Your task to perform on an android device: Clear the cart on target. Search for alienware aurora on target, select the first entry, and add it to the cart. Image 0: 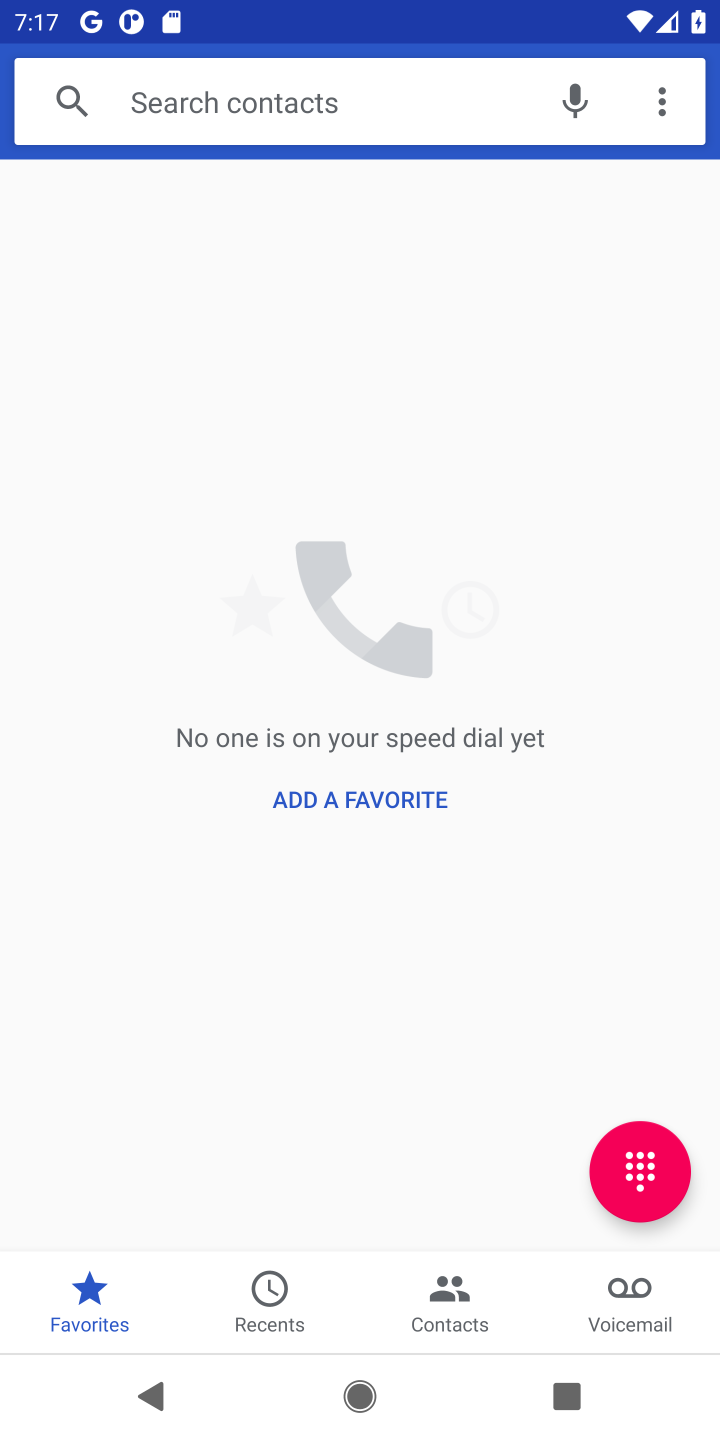
Step 0: press home button
Your task to perform on an android device: Clear the cart on target. Search for alienware aurora on target, select the first entry, and add it to the cart. Image 1: 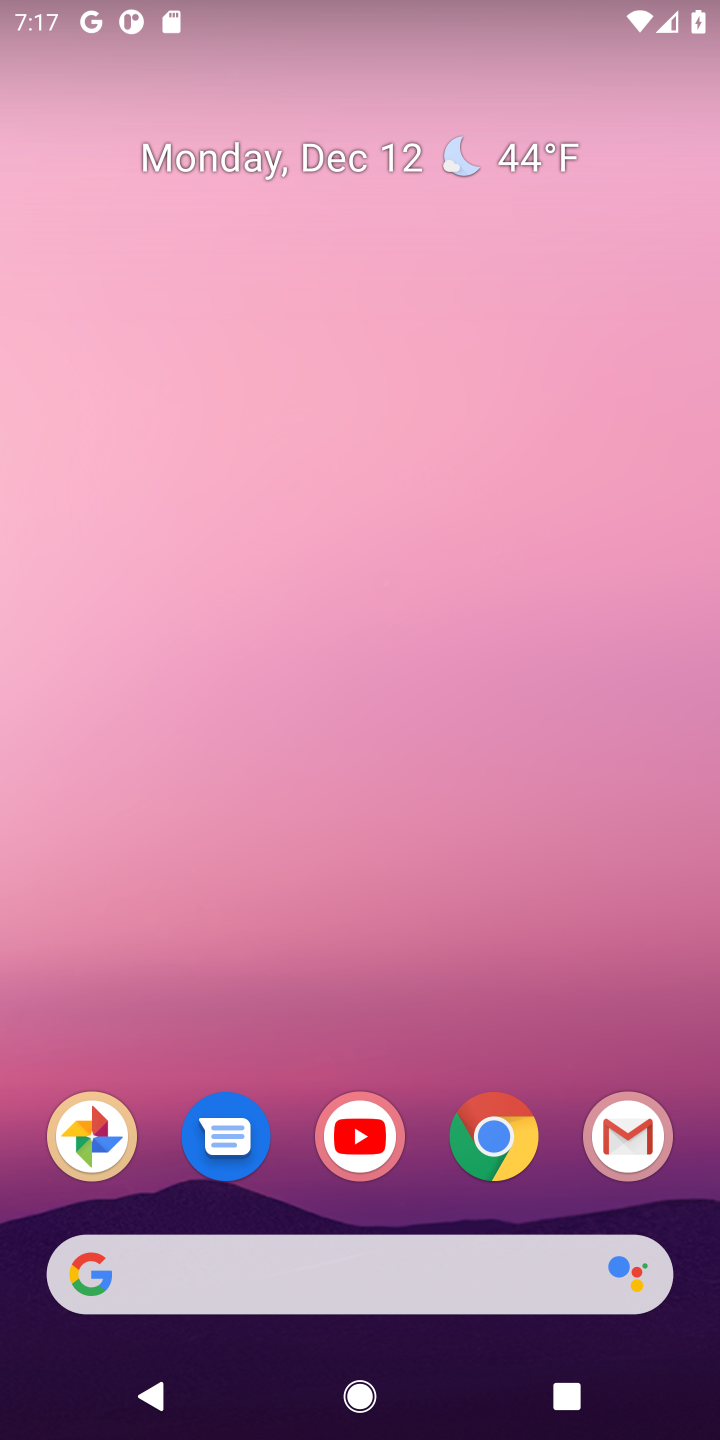
Step 1: click (499, 1140)
Your task to perform on an android device: Clear the cart on target. Search for alienware aurora on target, select the first entry, and add it to the cart. Image 2: 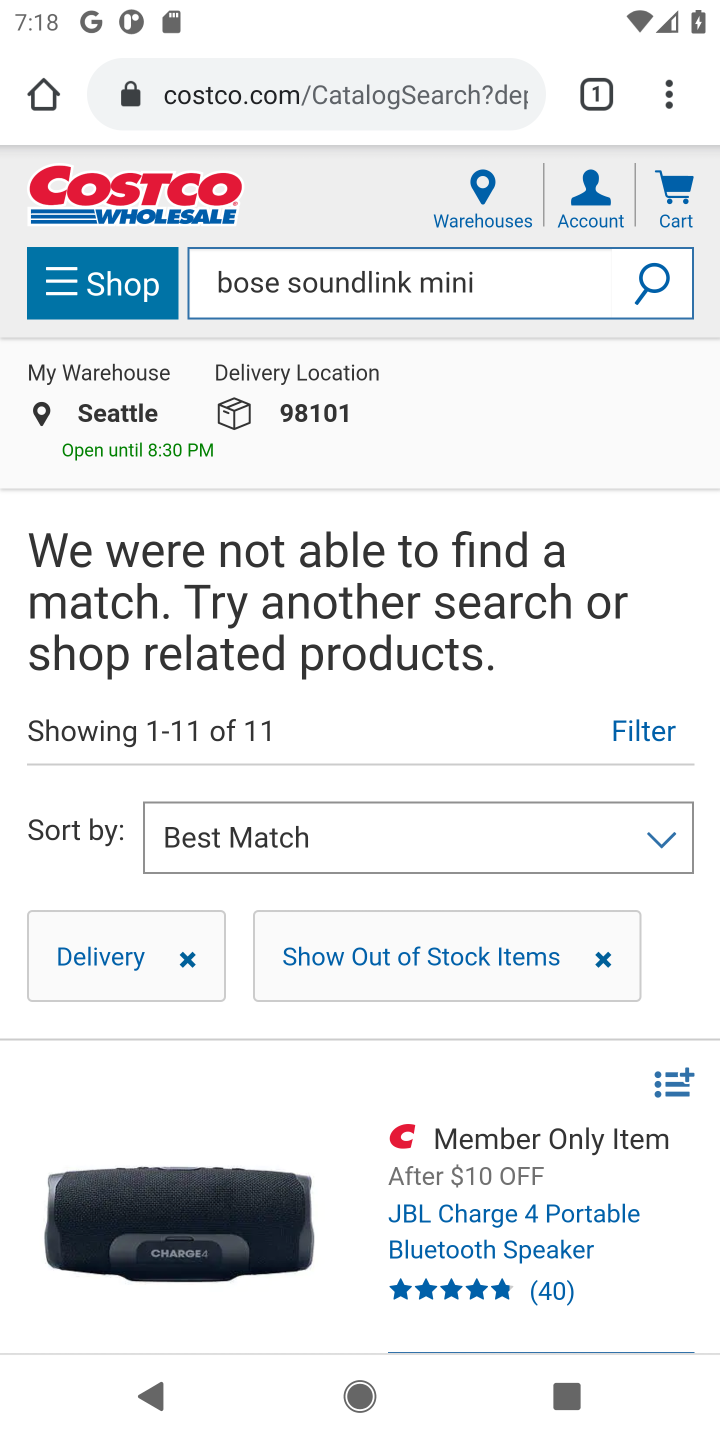
Step 2: click (316, 93)
Your task to perform on an android device: Clear the cart on target. Search for alienware aurora on target, select the first entry, and add it to the cart. Image 3: 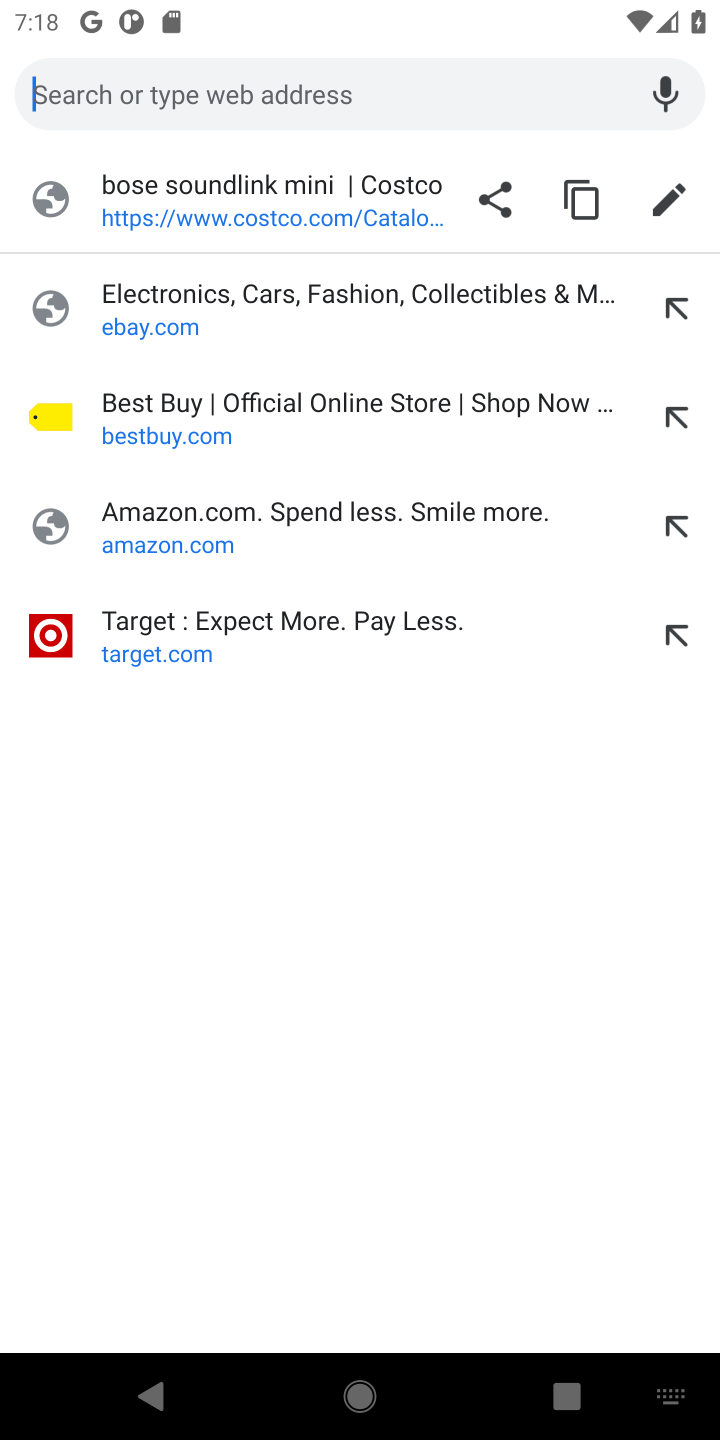
Step 3: click (152, 646)
Your task to perform on an android device: Clear the cart on target. Search for alienware aurora on target, select the first entry, and add it to the cart. Image 4: 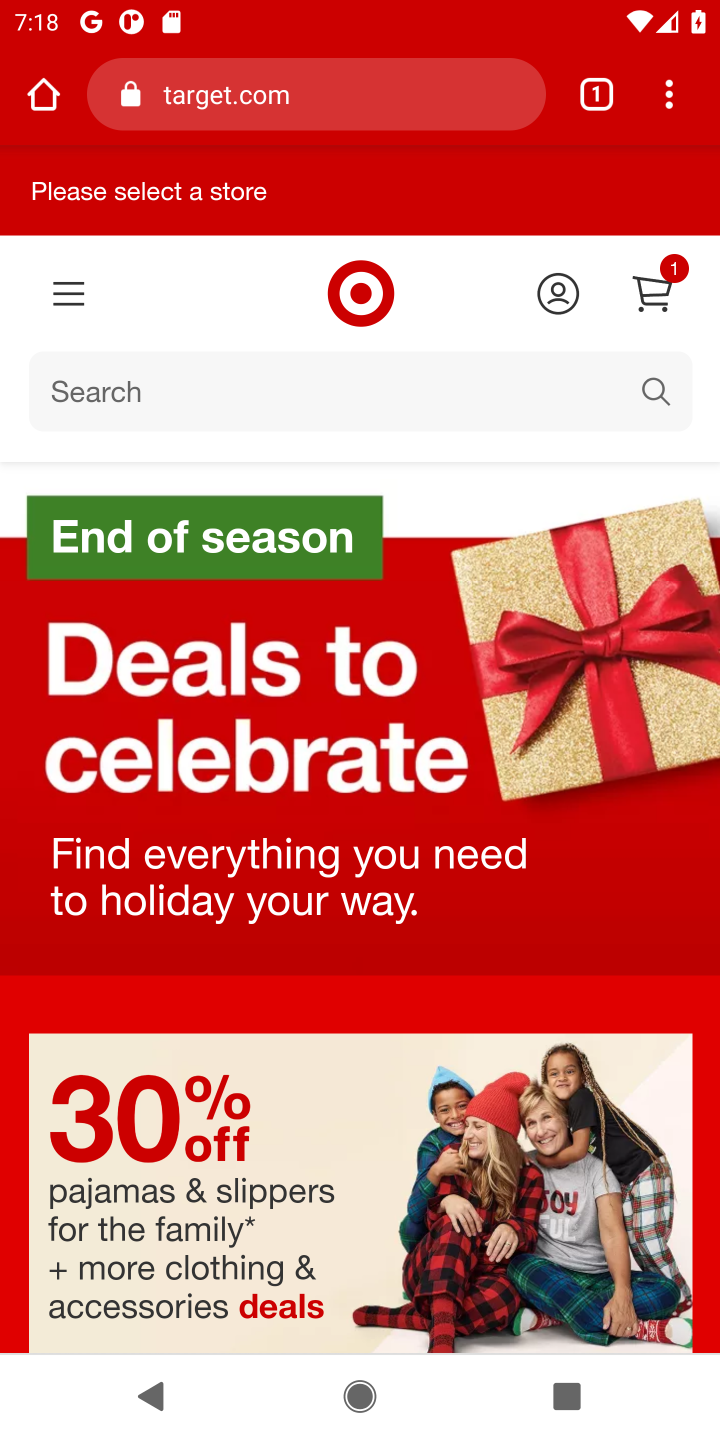
Step 4: click (642, 295)
Your task to perform on an android device: Clear the cart on target. Search for alienware aurora on target, select the first entry, and add it to the cart. Image 5: 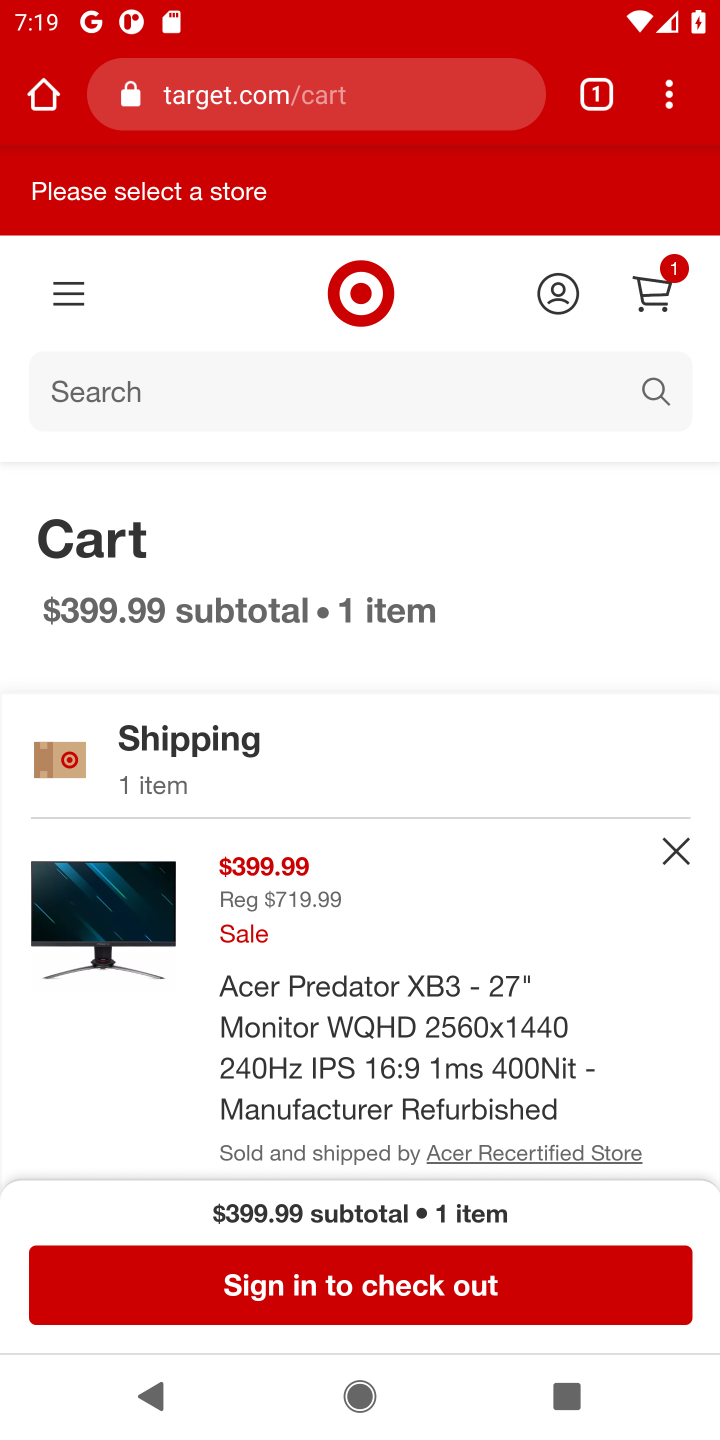
Step 5: click (671, 857)
Your task to perform on an android device: Clear the cart on target. Search for alienware aurora on target, select the first entry, and add it to the cart. Image 6: 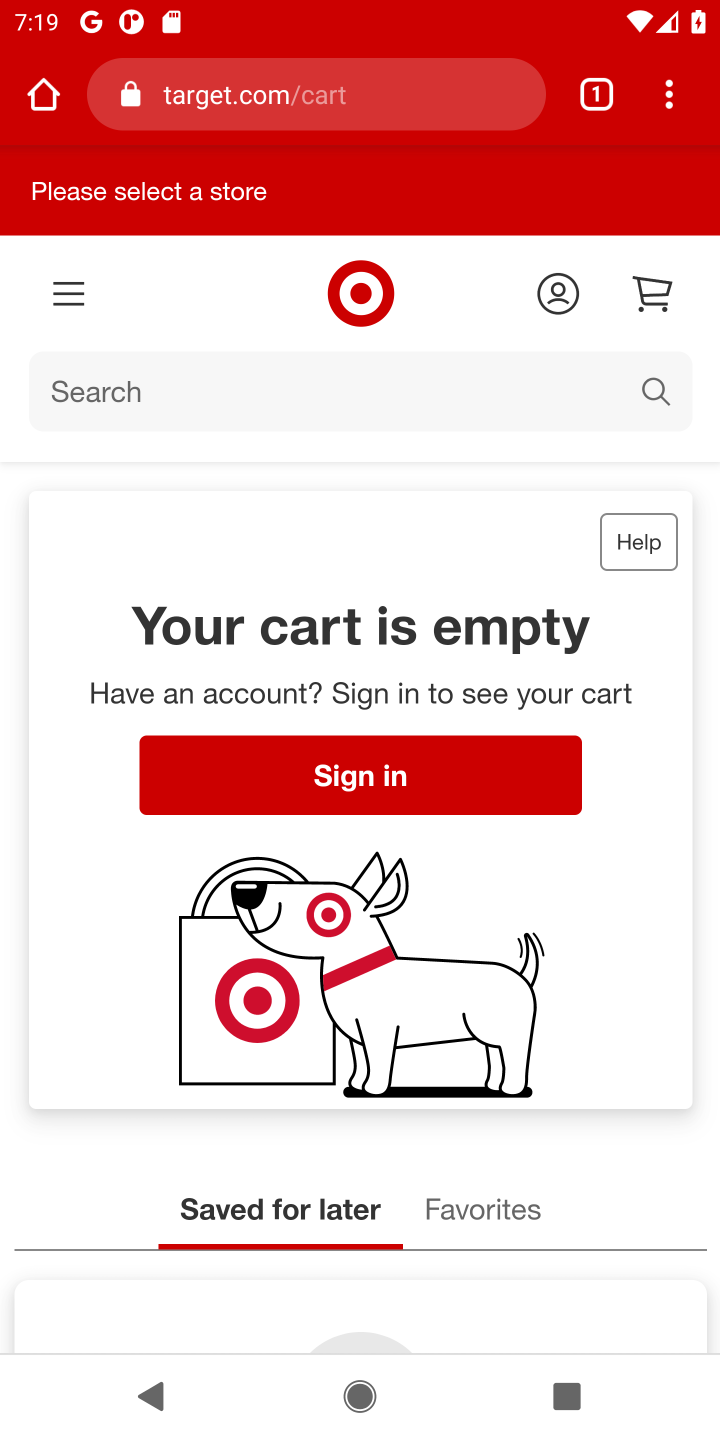
Step 6: click (123, 397)
Your task to perform on an android device: Clear the cart on target. Search for alienware aurora on target, select the first entry, and add it to the cart. Image 7: 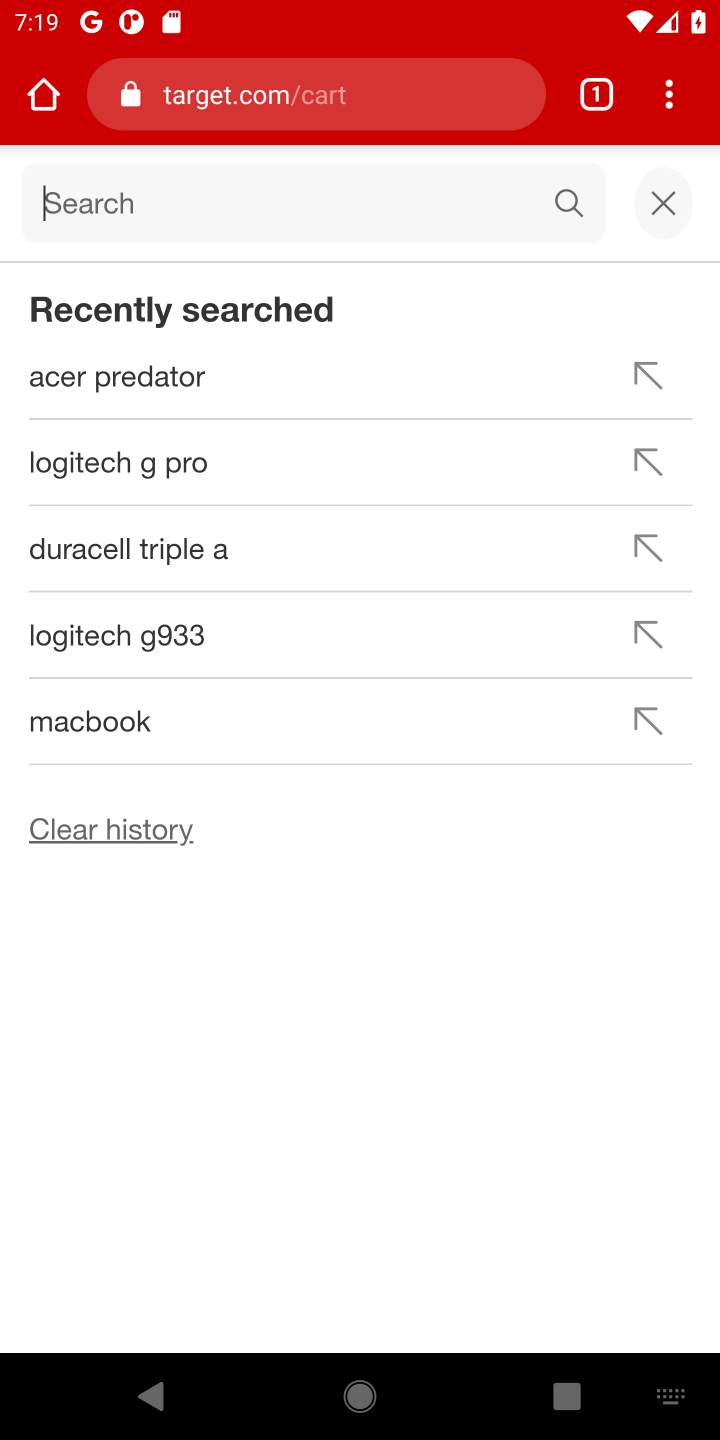
Step 7: type "alienware aurora"
Your task to perform on an android device: Clear the cart on target. Search for alienware aurora on target, select the first entry, and add it to the cart. Image 8: 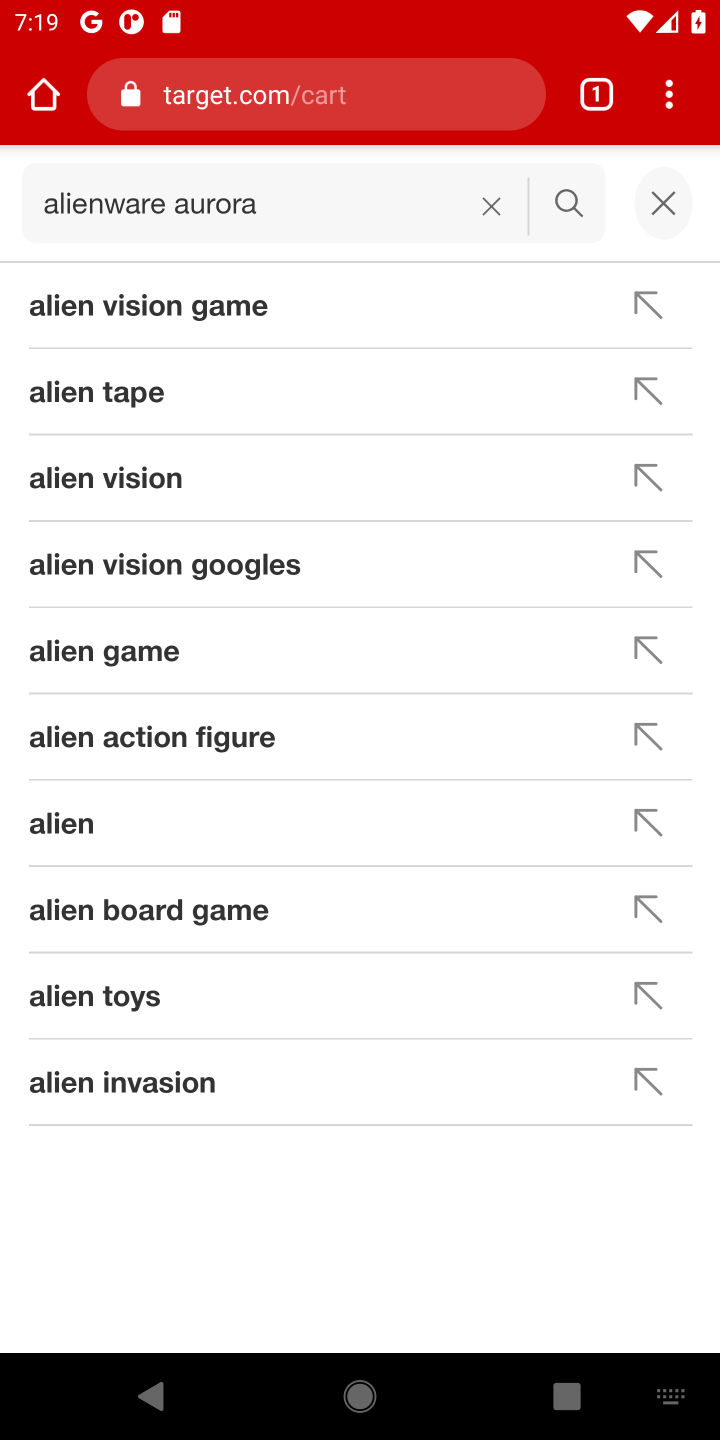
Step 8: click (574, 212)
Your task to perform on an android device: Clear the cart on target. Search for alienware aurora on target, select the first entry, and add it to the cart. Image 9: 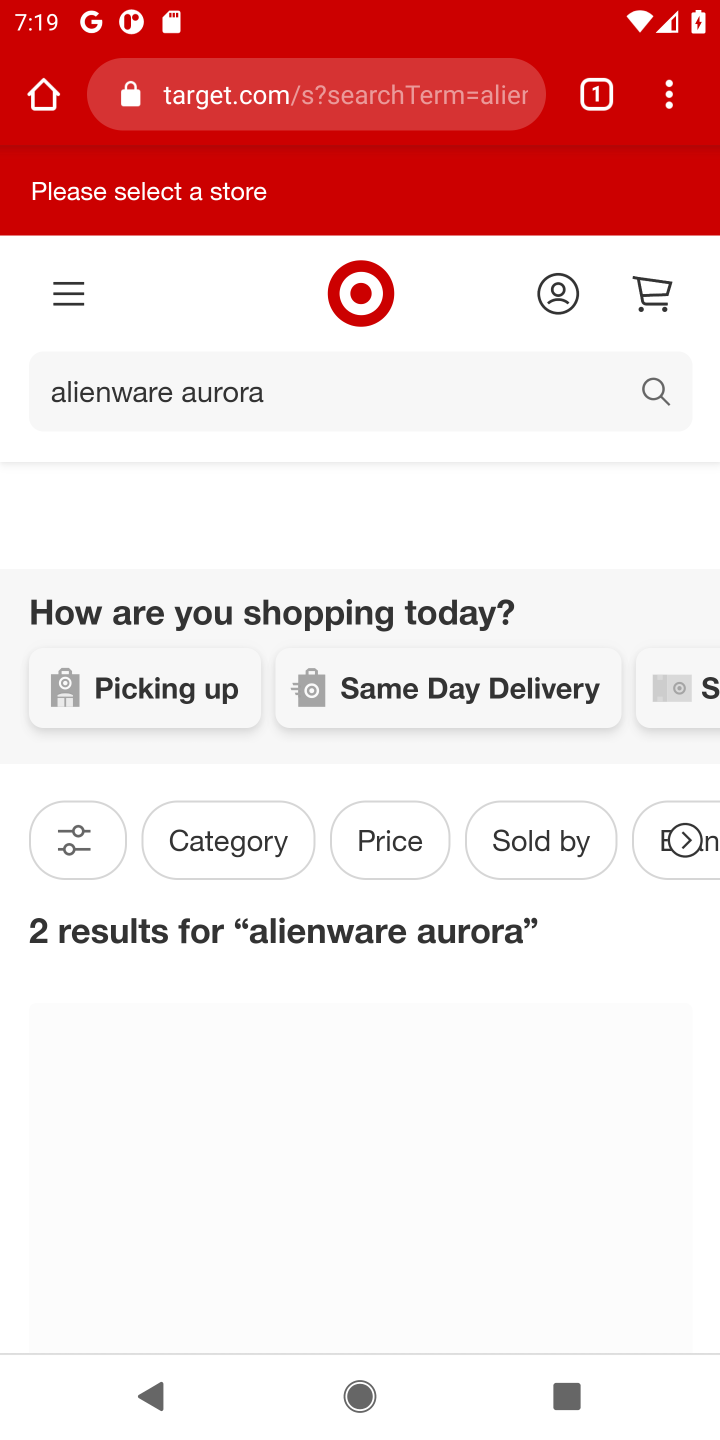
Step 9: task complete